Your task to perform on an android device: Open notification settings Image 0: 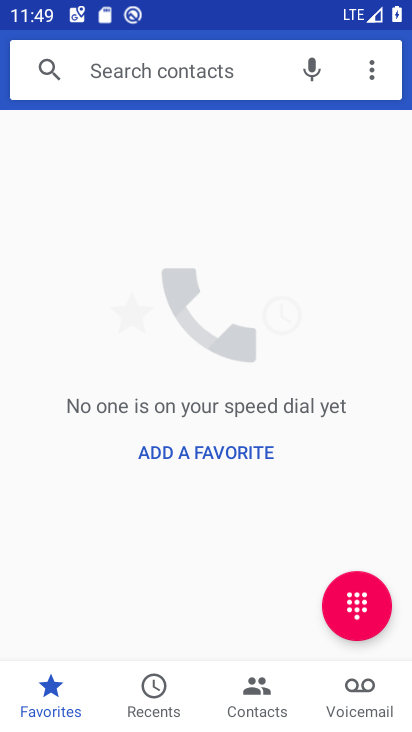
Step 0: press home button
Your task to perform on an android device: Open notification settings Image 1: 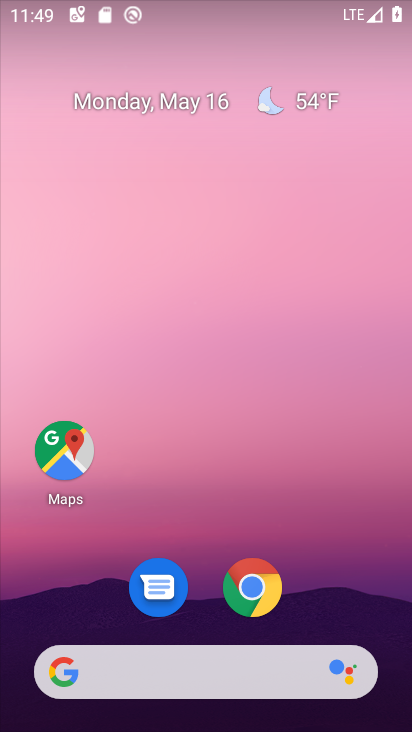
Step 1: drag from (215, 616) to (234, 19)
Your task to perform on an android device: Open notification settings Image 2: 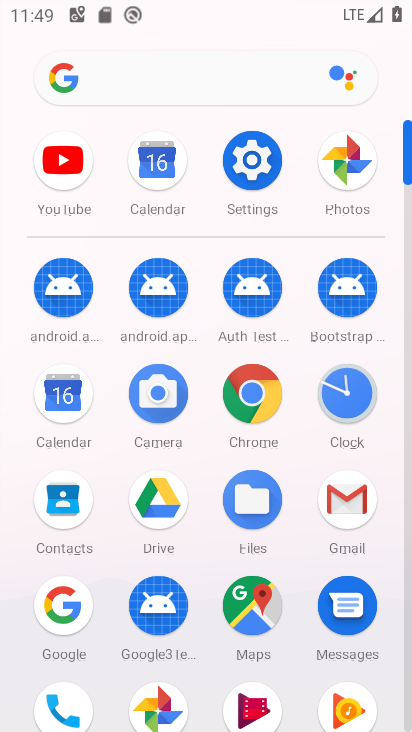
Step 2: click (259, 174)
Your task to perform on an android device: Open notification settings Image 3: 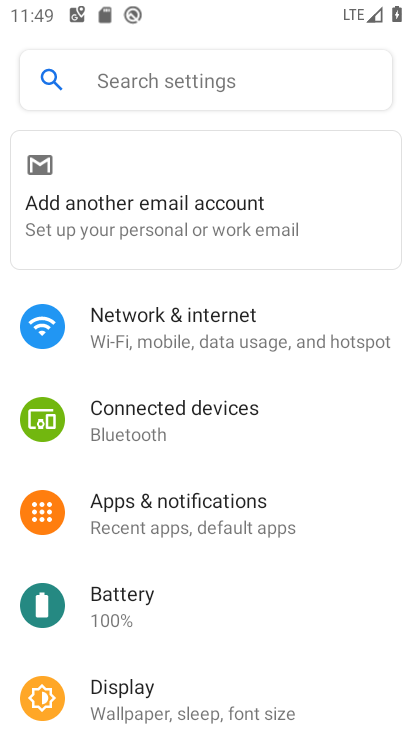
Step 3: click (177, 516)
Your task to perform on an android device: Open notification settings Image 4: 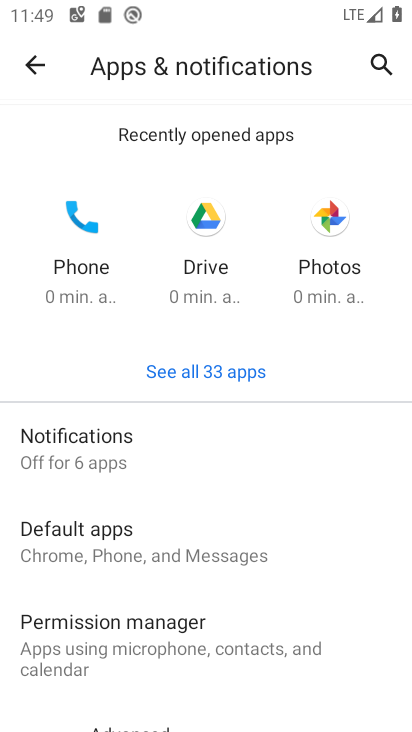
Step 4: click (112, 435)
Your task to perform on an android device: Open notification settings Image 5: 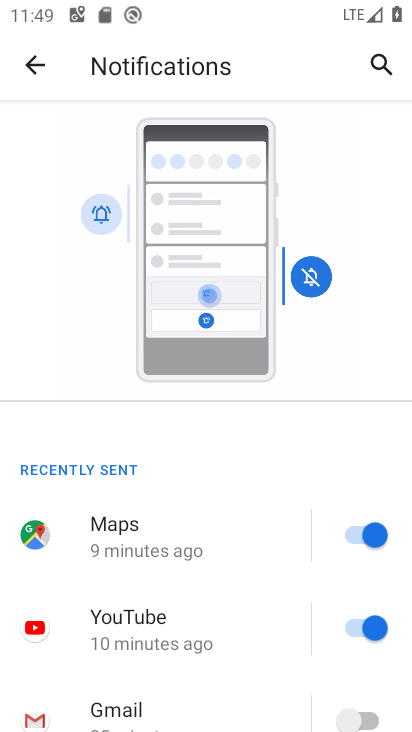
Step 5: task complete